Your task to perform on an android device: move an email to a new category in the gmail app Image 0: 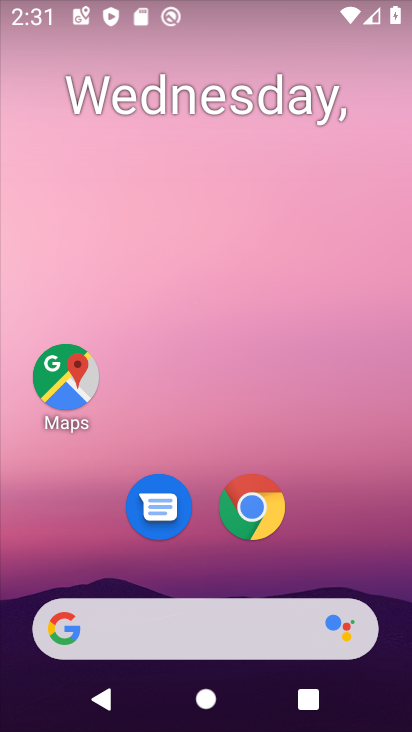
Step 0: press home button
Your task to perform on an android device: move an email to a new category in the gmail app Image 1: 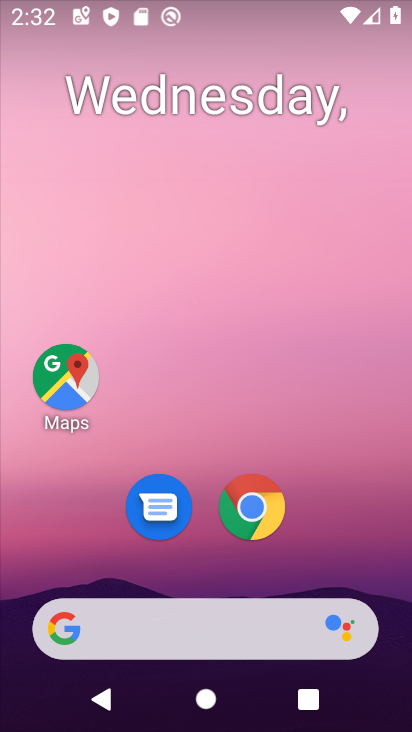
Step 1: drag from (360, 490) to (311, 174)
Your task to perform on an android device: move an email to a new category in the gmail app Image 2: 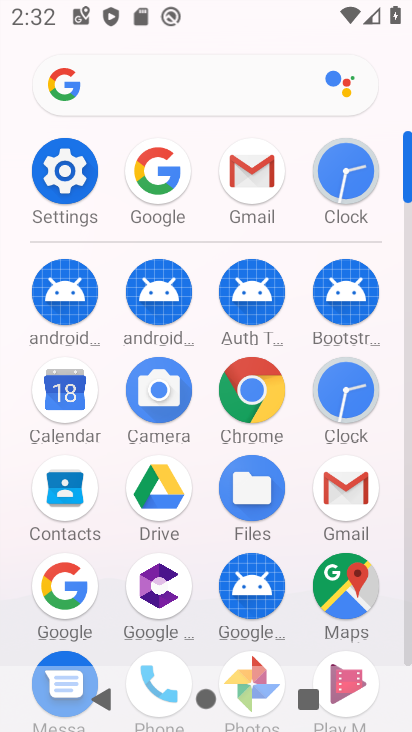
Step 2: click (257, 178)
Your task to perform on an android device: move an email to a new category in the gmail app Image 3: 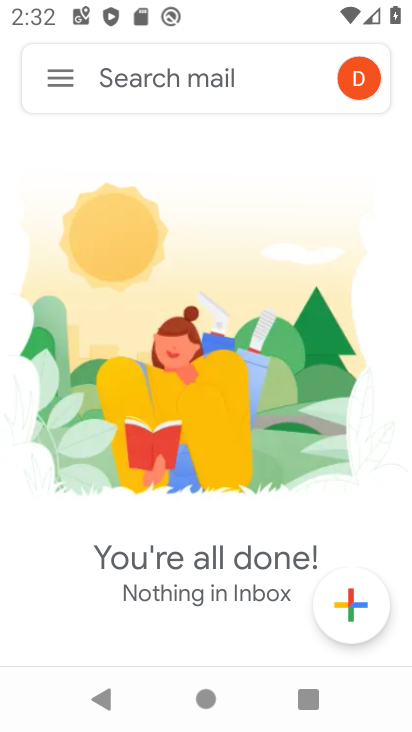
Step 3: click (49, 61)
Your task to perform on an android device: move an email to a new category in the gmail app Image 4: 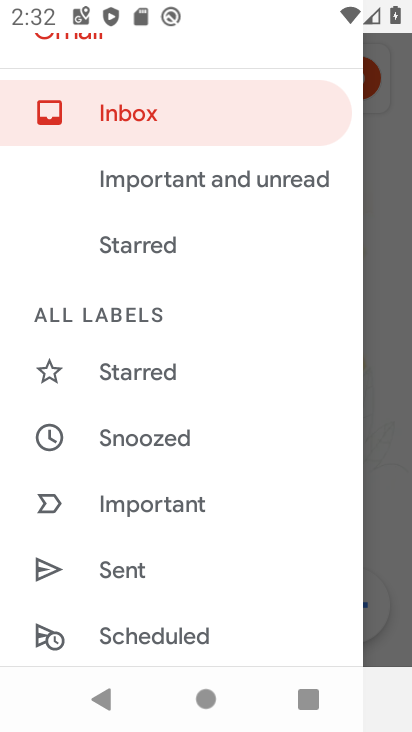
Step 4: drag from (233, 468) to (236, 89)
Your task to perform on an android device: move an email to a new category in the gmail app Image 5: 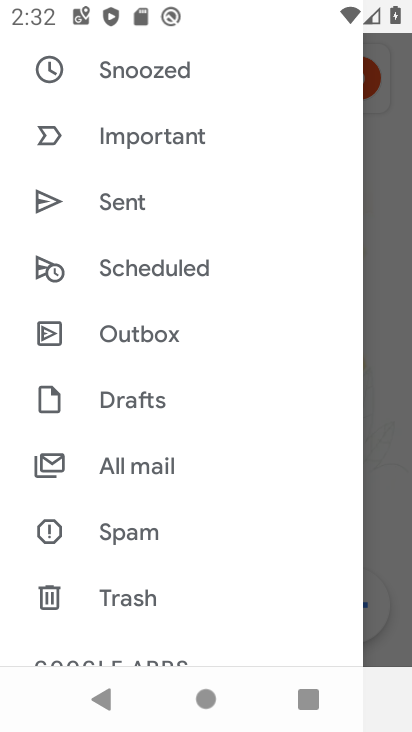
Step 5: drag from (241, 471) to (252, 13)
Your task to perform on an android device: move an email to a new category in the gmail app Image 6: 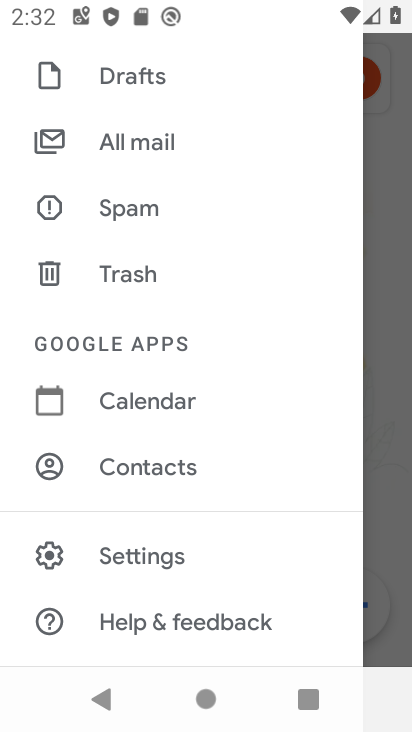
Step 6: click (234, 544)
Your task to perform on an android device: move an email to a new category in the gmail app Image 7: 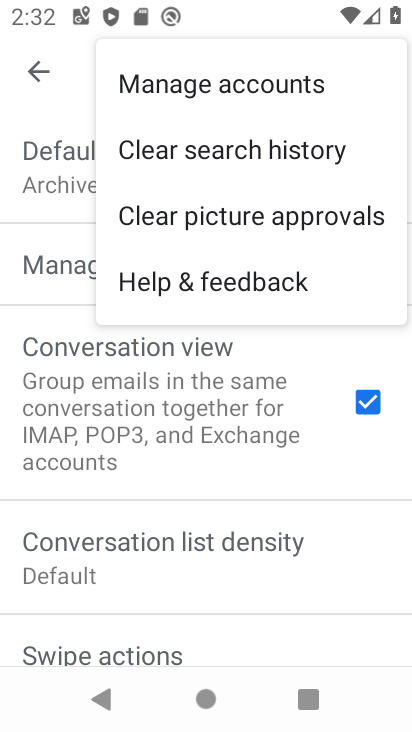
Step 7: task complete